Your task to perform on an android device: check out phone information Image 0: 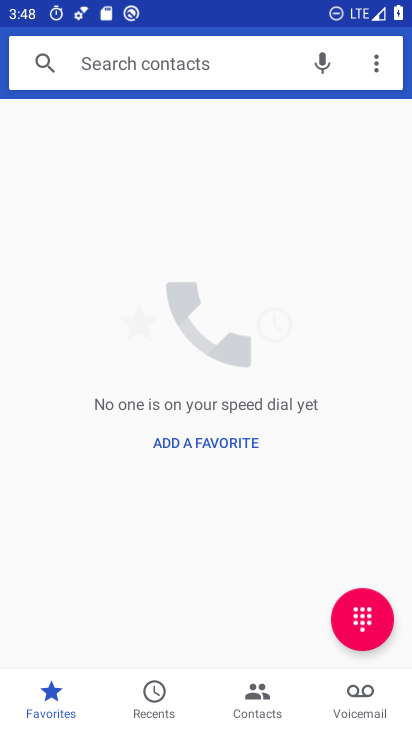
Step 0: press home button
Your task to perform on an android device: check out phone information Image 1: 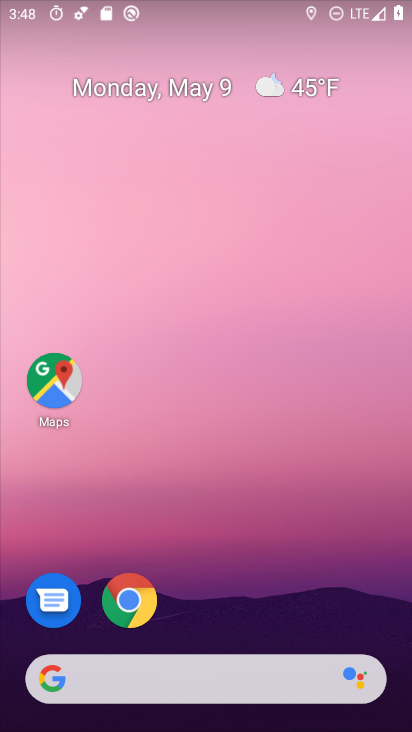
Step 1: drag from (215, 623) to (277, 127)
Your task to perform on an android device: check out phone information Image 2: 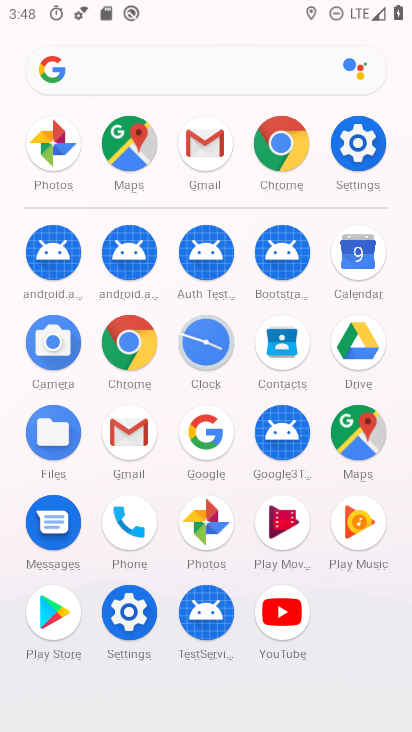
Step 2: click (363, 172)
Your task to perform on an android device: check out phone information Image 3: 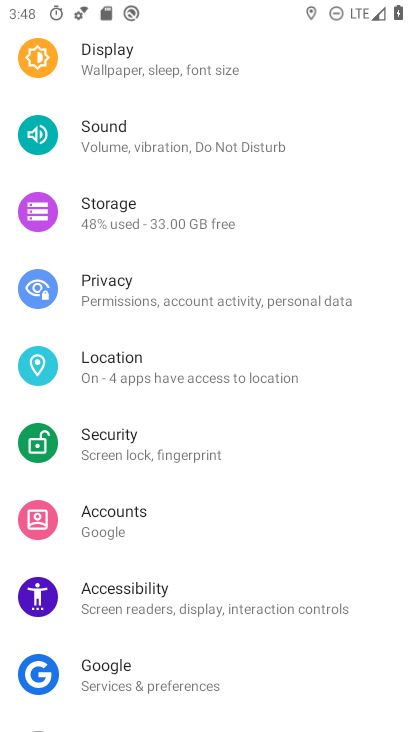
Step 3: drag from (213, 617) to (232, 213)
Your task to perform on an android device: check out phone information Image 4: 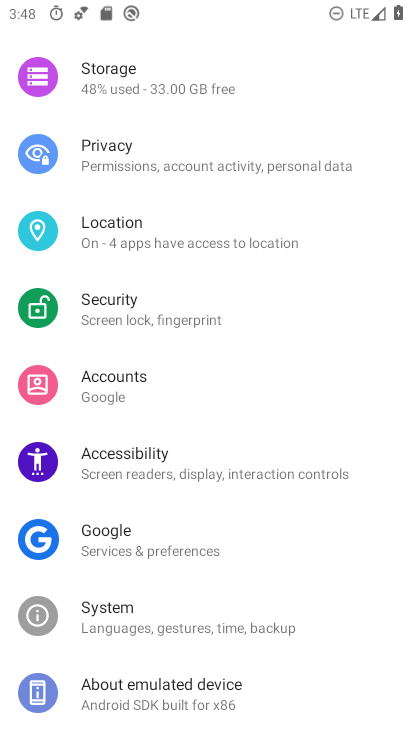
Step 4: click (149, 698)
Your task to perform on an android device: check out phone information Image 5: 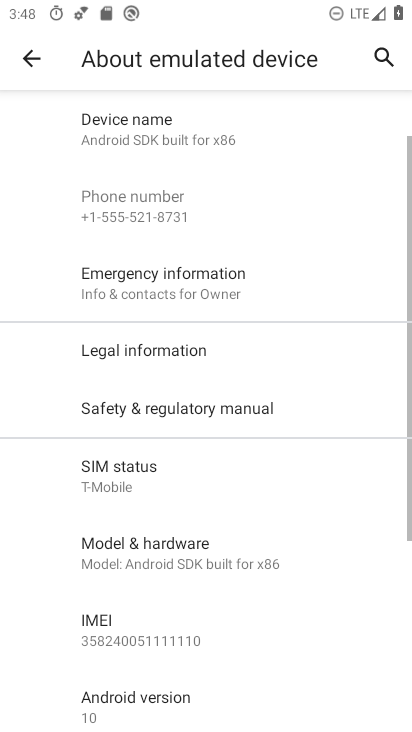
Step 5: task complete